Your task to perform on an android device: What's the weather going to be this weekend? Image 0: 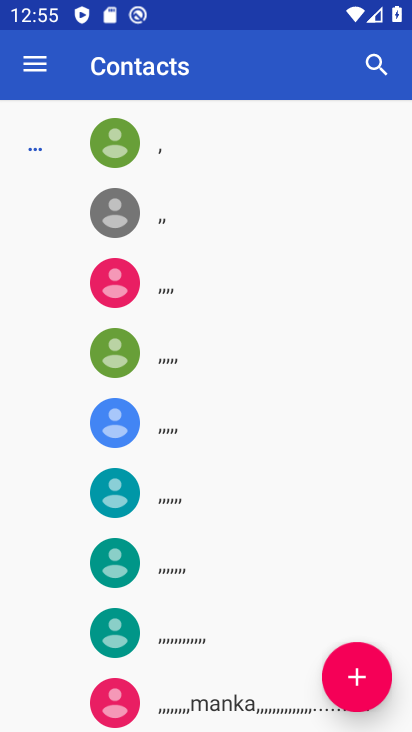
Step 0: press back button
Your task to perform on an android device: What's the weather going to be this weekend? Image 1: 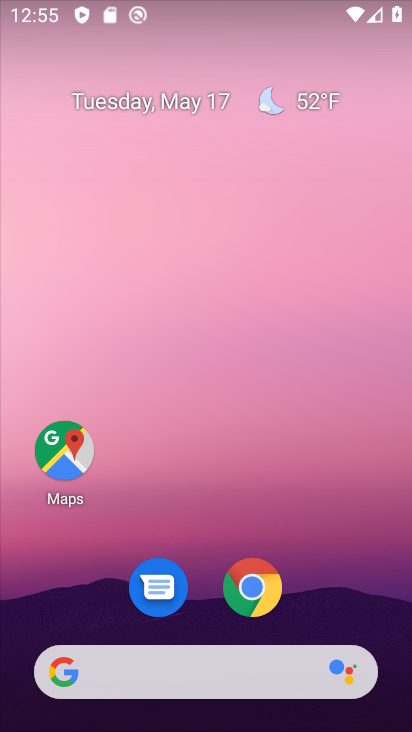
Step 1: drag from (352, 572) to (252, 164)
Your task to perform on an android device: What's the weather going to be this weekend? Image 2: 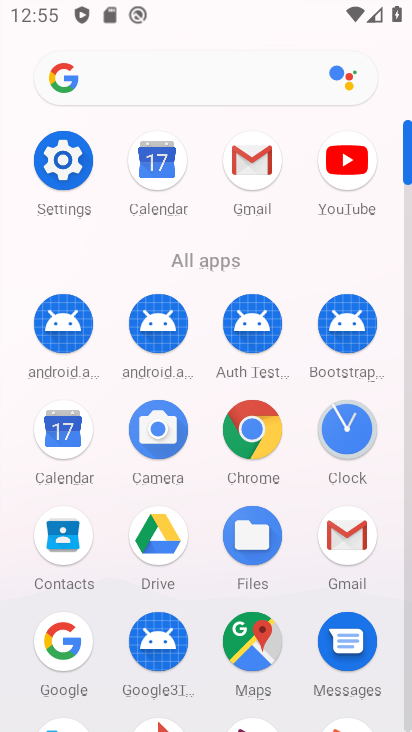
Step 2: click (216, 76)
Your task to perform on an android device: What's the weather going to be this weekend? Image 3: 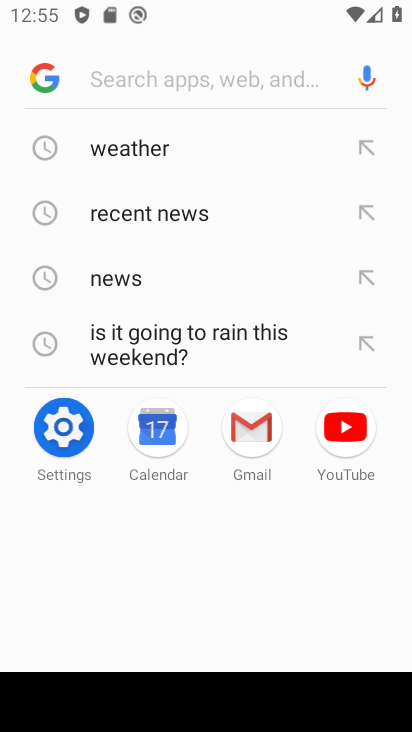
Step 3: click (158, 168)
Your task to perform on an android device: What's the weather going to be this weekend? Image 4: 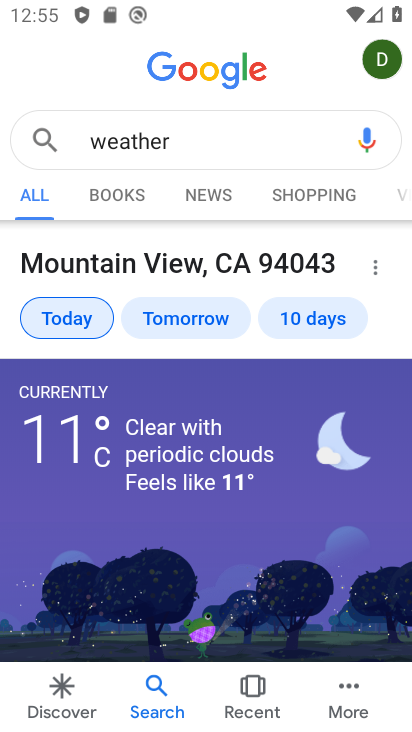
Step 4: click (280, 311)
Your task to perform on an android device: What's the weather going to be this weekend? Image 5: 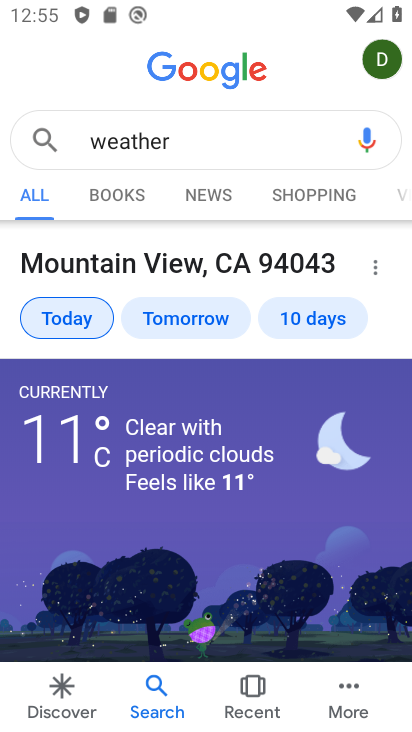
Step 5: click (322, 314)
Your task to perform on an android device: What's the weather going to be this weekend? Image 6: 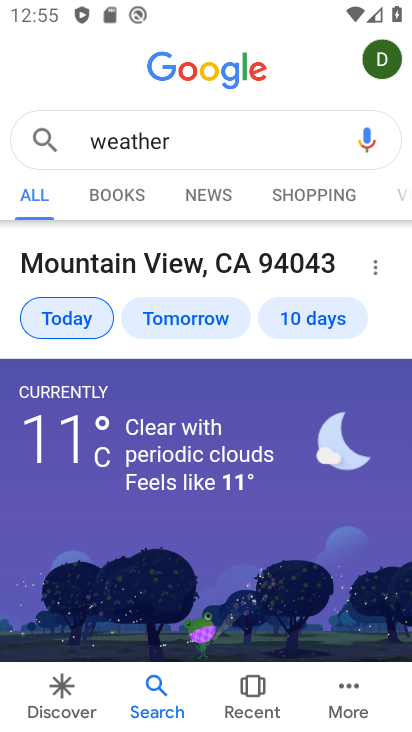
Step 6: click (322, 314)
Your task to perform on an android device: What's the weather going to be this weekend? Image 7: 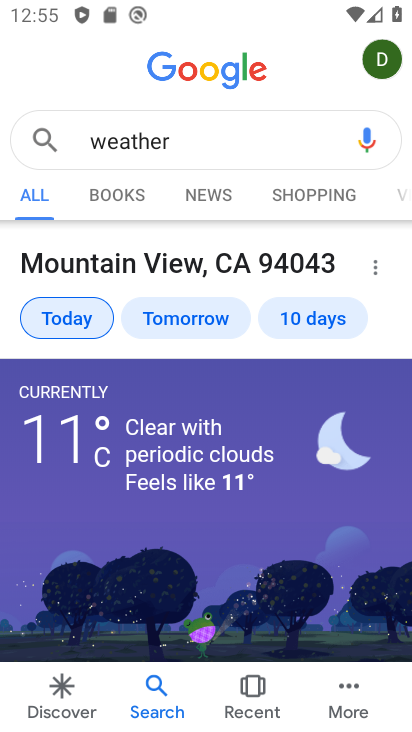
Step 7: click (322, 314)
Your task to perform on an android device: What's the weather going to be this weekend? Image 8: 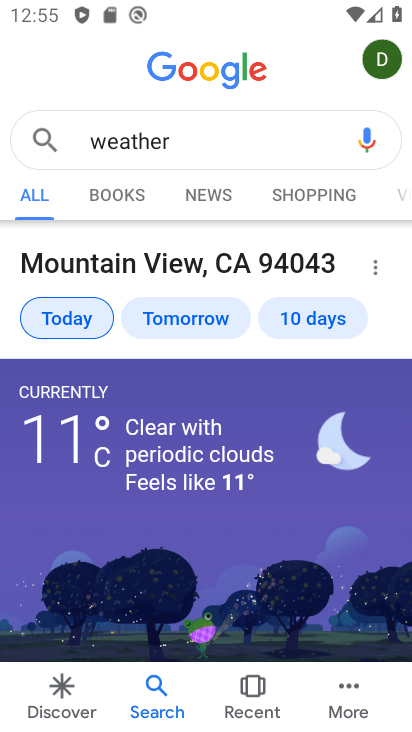
Step 8: task complete